Your task to perform on an android device: uninstall "Flipkart Online Shopping App" Image 0: 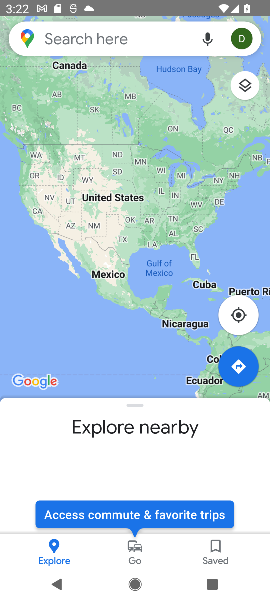
Step 0: press home button
Your task to perform on an android device: uninstall "Flipkart Online Shopping App" Image 1: 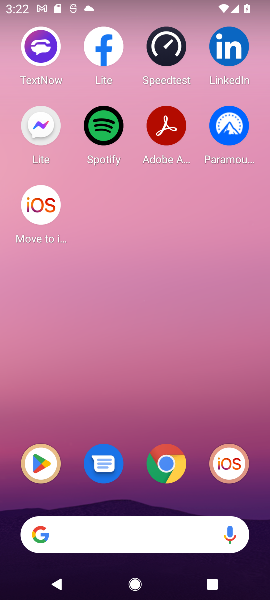
Step 1: drag from (111, 530) to (144, 73)
Your task to perform on an android device: uninstall "Flipkart Online Shopping App" Image 2: 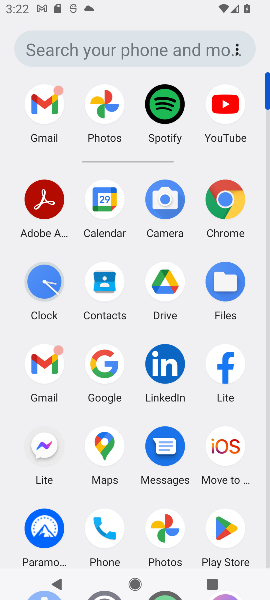
Step 2: click (228, 528)
Your task to perform on an android device: uninstall "Flipkart Online Shopping App" Image 3: 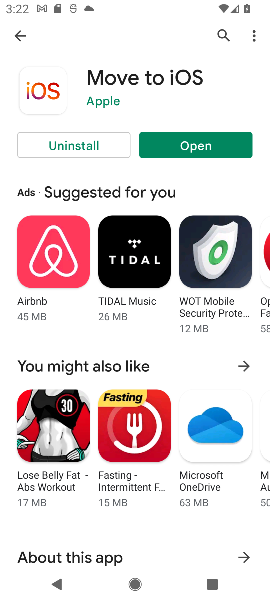
Step 3: click (222, 34)
Your task to perform on an android device: uninstall "Flipkart Online Shopping App" Image 4: 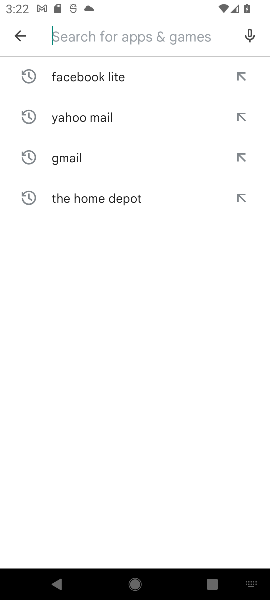
Step 4: type "Flipkart Online Shopping App"
Your task to perform on an android device: uninstall "Flipkart Online Shopping App" Image 5: 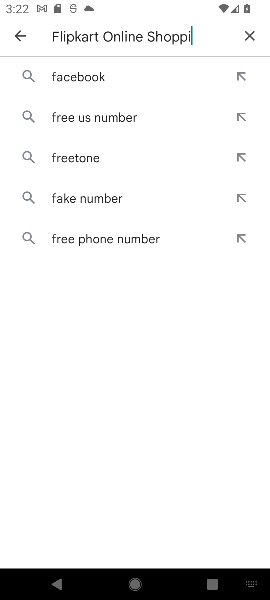
Step 5: type ""
Your task to perform on an android device: uninstall "Flipkart Online Shopping App" Image 6: 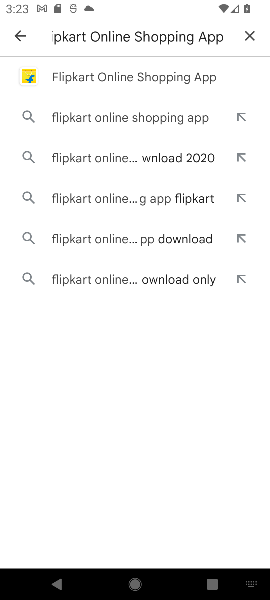
Step 6: click (169, 78)
Your task to perform on an android device: uninstall "Flipkart Online Shopping App" Image 7: 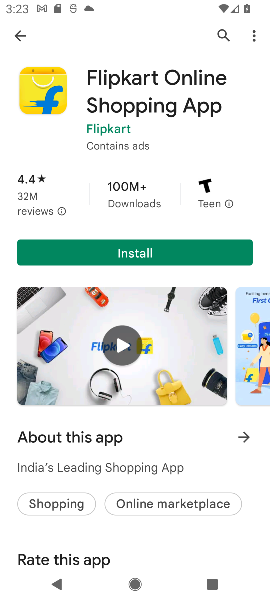
Step 7: task complete